Your task to perform on an android device: add a label to a message in the gmail app Image 0: 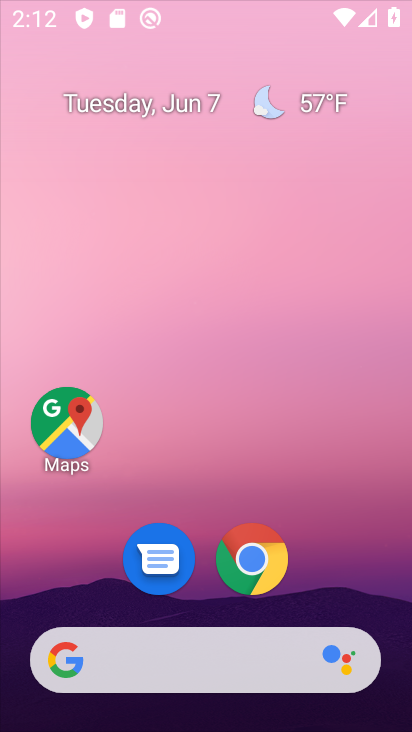
Step 0: drag from (248, 103) to (237, 34)
Your task to perform on an android device: add a label to a message in the gmail app Image 1: 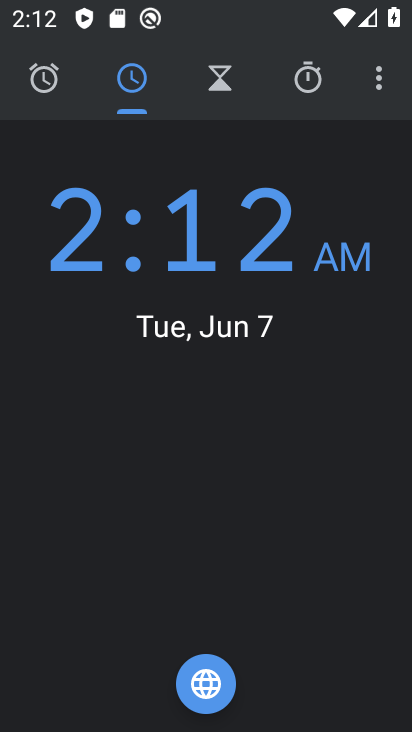
Step 1: press back button
Your task to perform on an android device: add a label to a message in the gmail app Image 2: 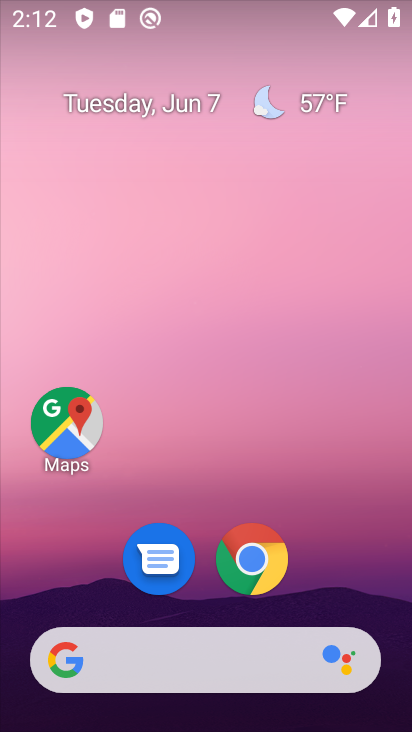
Step 2: drag from (324, 535) to (232, 35)
Your task to perform on an android device: add a label to a message in the gmail app Image 3: 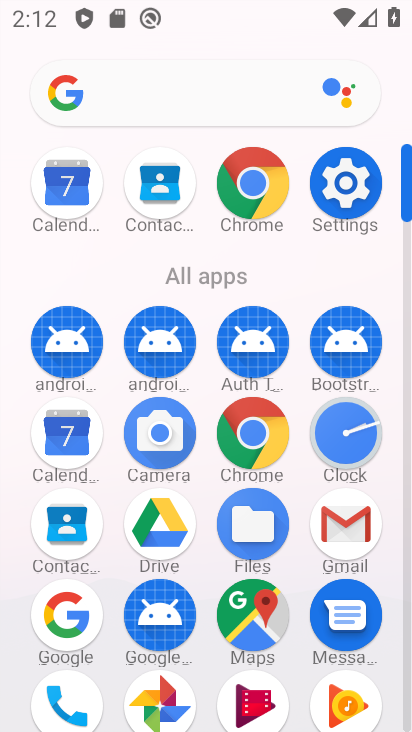
Step 3: drag from (21, 616) to (16, 264)
Your task to perform on an android device: add a label to a message in the gmail app Image 4: 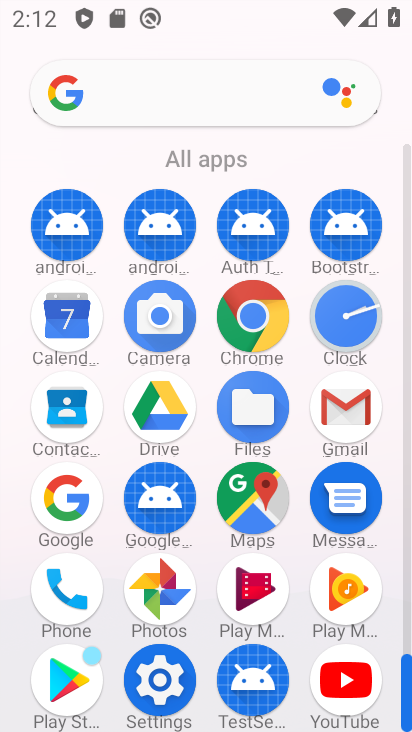
Step 4: click (349, 399)
Your task to perform on an android device: add a label to a message in the gmail app Image 5: 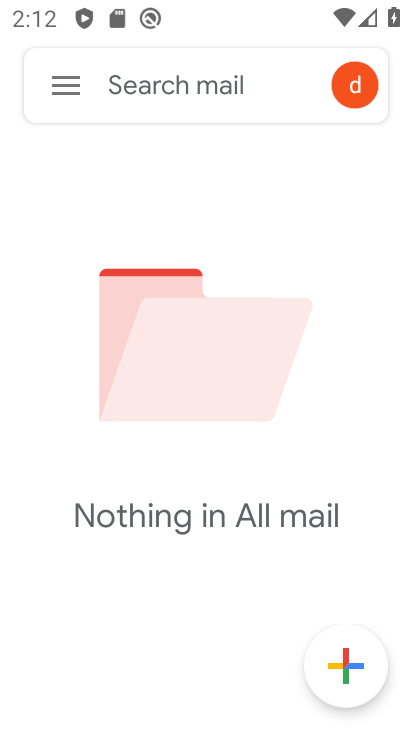
Step 5: click (63, 88)
Your task to perform on an android device: add a label to a message in the gmail app Image 6: 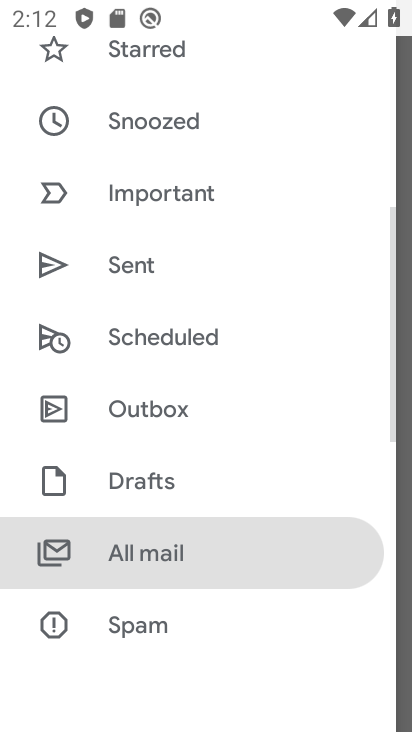
Step 6: drag from (255, 473) to (269, 607)
Your task to perform on an android device: add a label to a message in the gmail app Image 7: 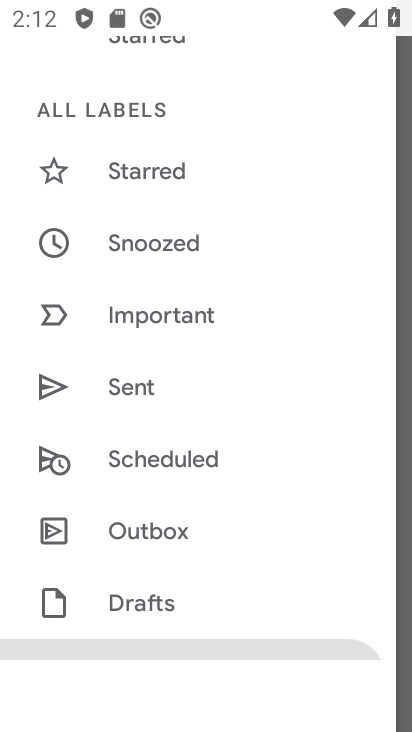
Step 7: click (166, 379)
Your task to perform on an android device: add a label to a message in the gmail app Image 8: 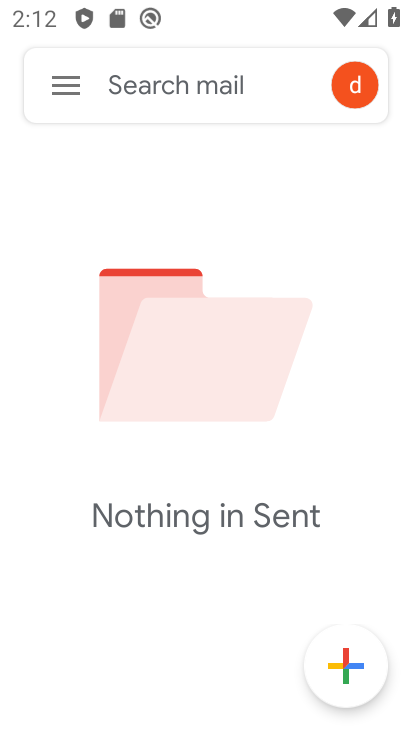
Step 8: click (54, 70)
Your task to perform on an android device: add a label to a message in the gmail app Image 9: 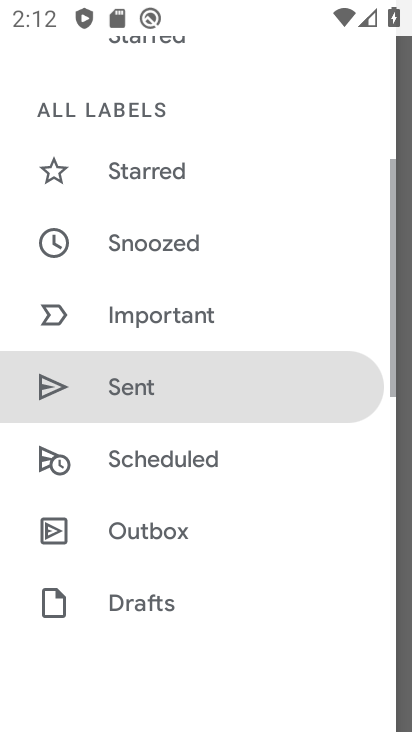
Step 9: click (181, 186)
Your task to perform on an android device: add a label to a message in the gmail app Image 10: 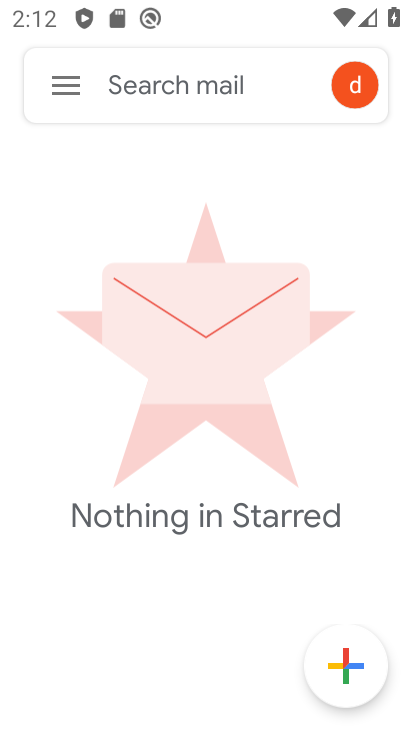
Step 10: click (83, 91)
Your task to perform on an android device: add a label to a message in the gmail app Image 11: 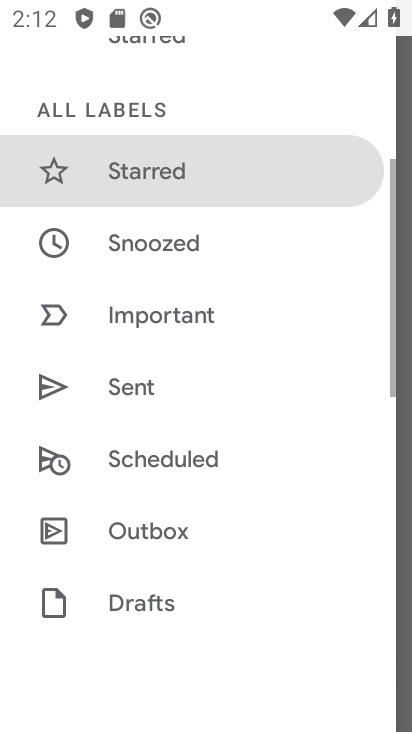
Step 11: click (186, 316)
Your task to perform on an android device: add a label to a message in the gmail app Image 12: 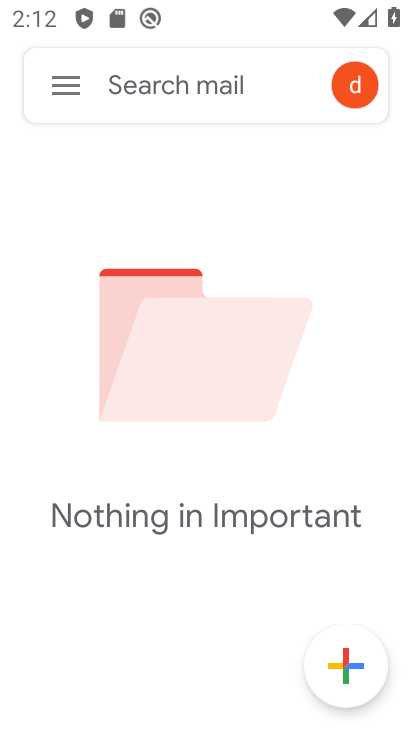
Step 12: click (75, 81)
Your task to perform on an android device: add a label to a message in the gmail app Image 13: 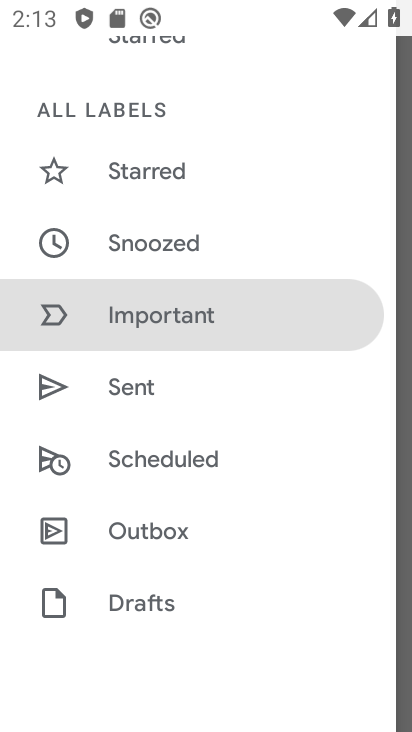
Step 13: drag from (238, 128) to (219, 627)
Your task to perform on an android device: add a label to a message in the gmail app Image 14: 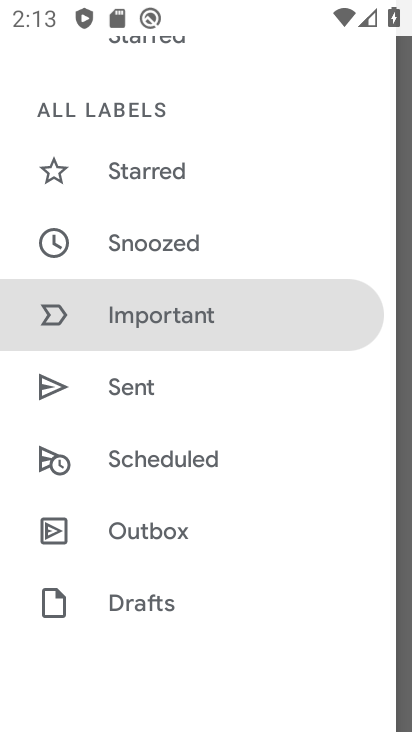
Step 14: click (188, 164)
Your task to perform on an android device: add a label to a message in the gmail app Image 15: 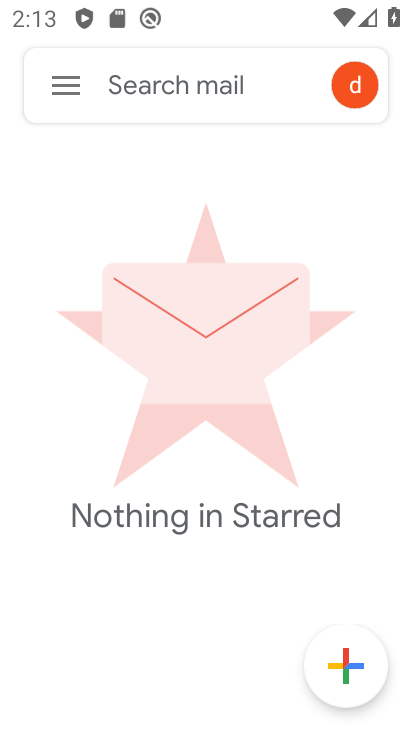
Step 15: task complete